Your task to perform on an android device: Empty the shopping cart on newegg.com. Search for logitech g pro on newegg.com, select the first entry, and add it to the cart. Image 0: 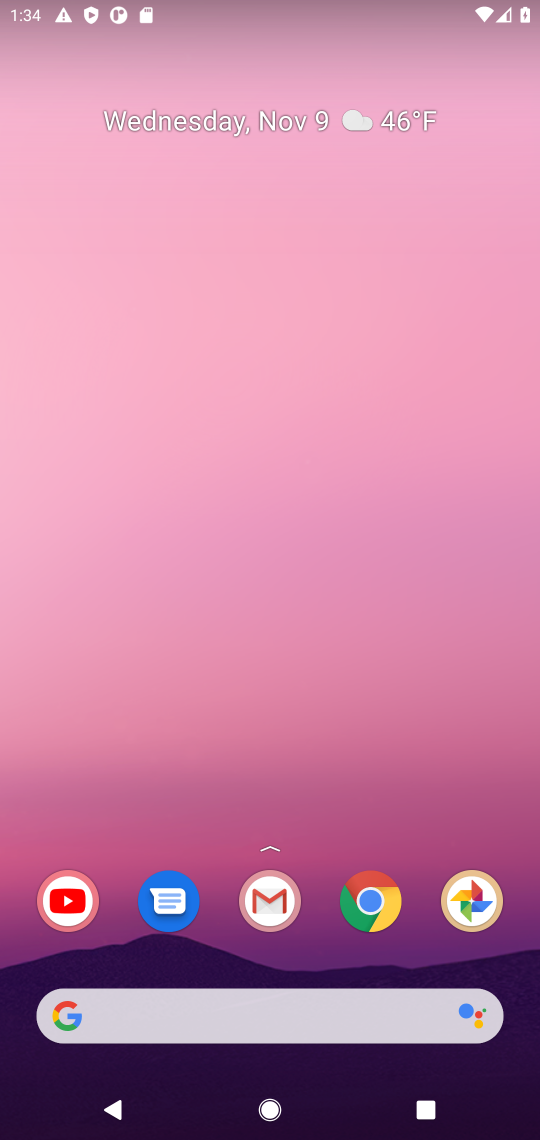
Step 0: click (367, 888)
Your task to perform on an android device: Empty the shopping cart on newegg.com. Search for logitech g pro on newegg.com, select the first entry, and add it to the cart. Image 1: 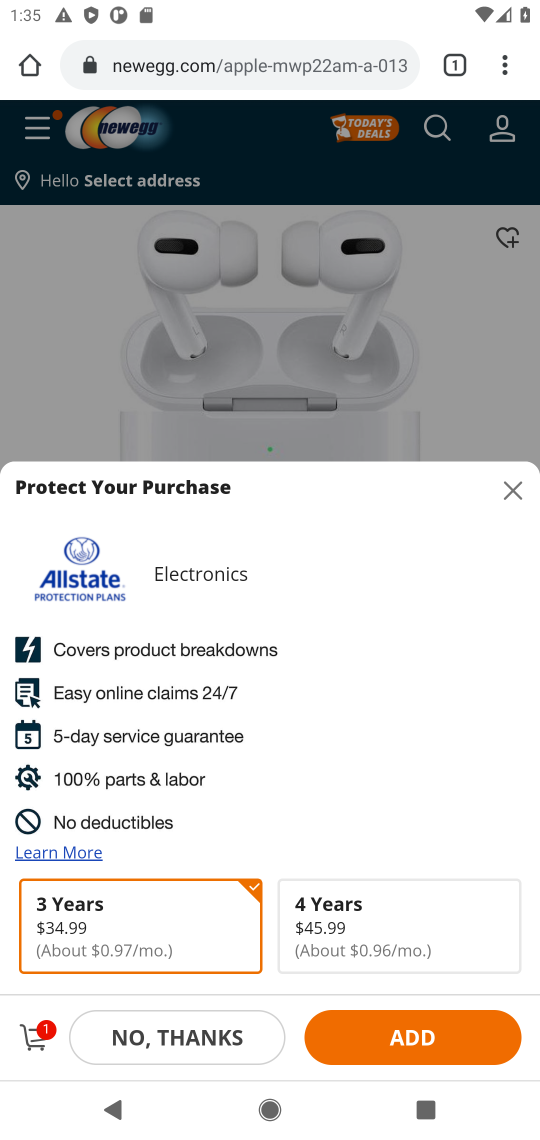
Step 1: click (522, 494)
Your task to perform on an android device: Empty the shopping cart on newegg.com. Search for logitech g pro on newegg.com, select the first entry, and add it to the cart. Image 2: 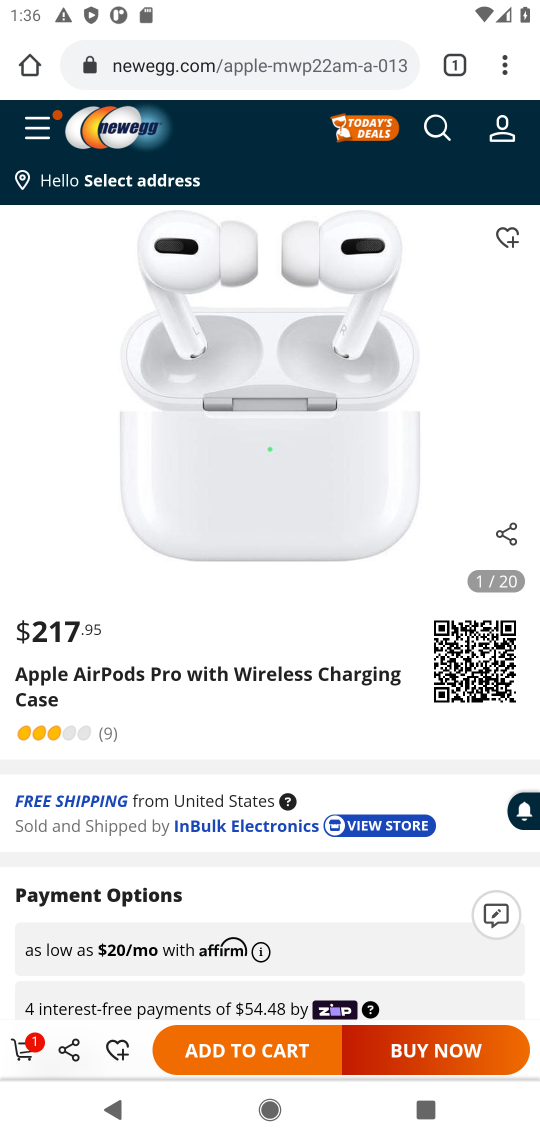
Step 2: click (223, 1050)
Your task to perform on an android device: Empty the shopping cart on newegg.com. Search for logitech g pro on newegg.com, select the first entry, and add it to the cart. Image 3: 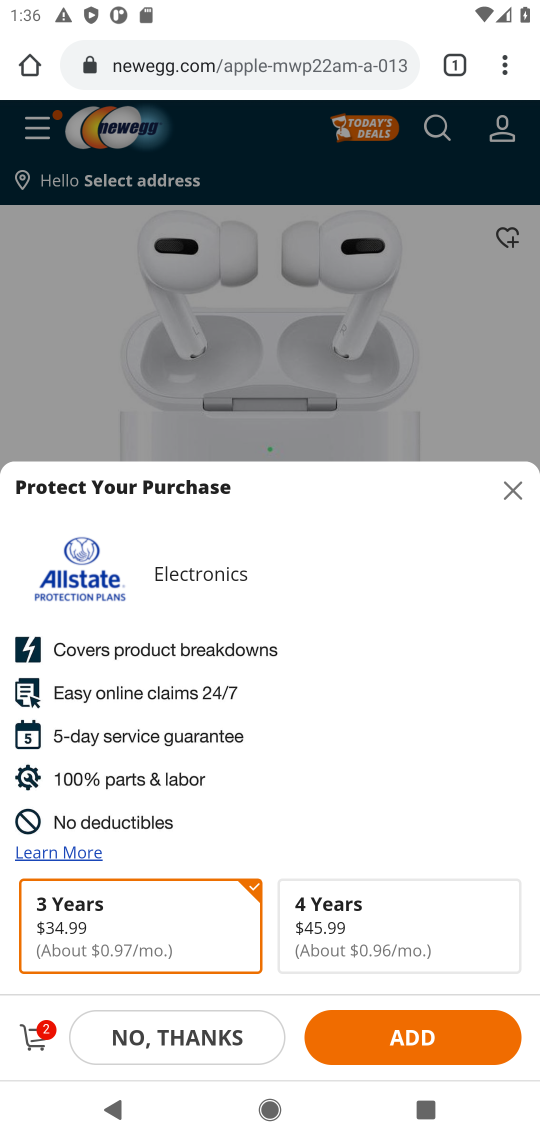
Step 3: click (516, 481)
Your task to perform on an android device: Empty the shopping cart on newegg.com. Search for logitech g pro on newegg.com, select the first entry, and add it to the cart. Image 4: 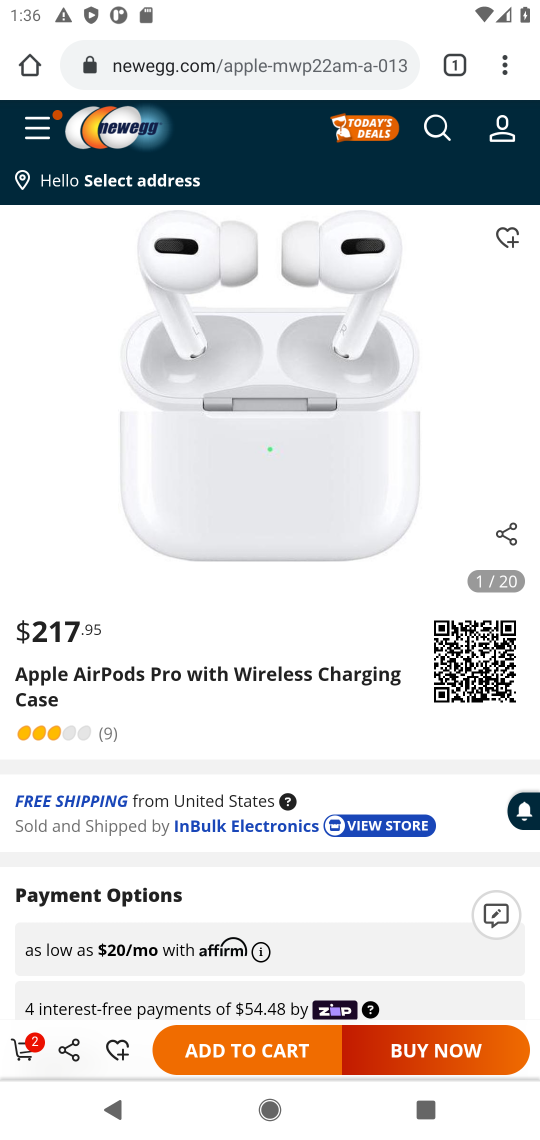
Step 4: task complete